Your task to perform on an android device: open a bookmark in the chrome app Image 0: 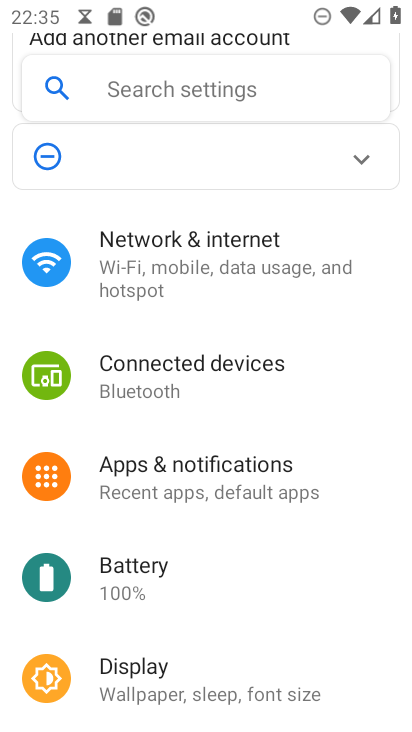
Step 0: press home button
Your task to perform on an android device: open a bookmark in the chrome app Image 1: 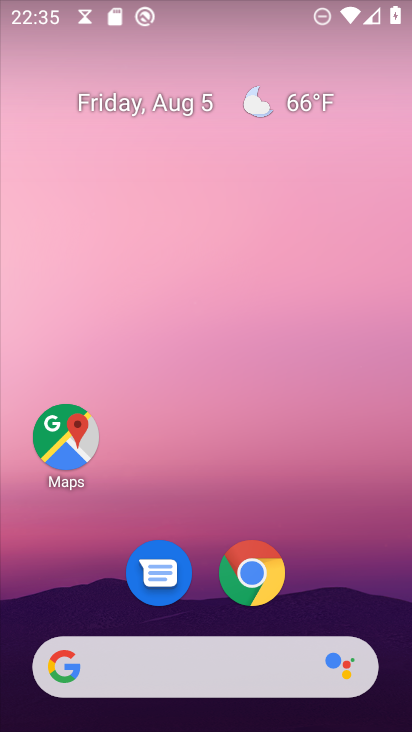
Step 1: click (250, 570)
Your task to perform on an android device: open a bookmark in the chrome app Image 2: 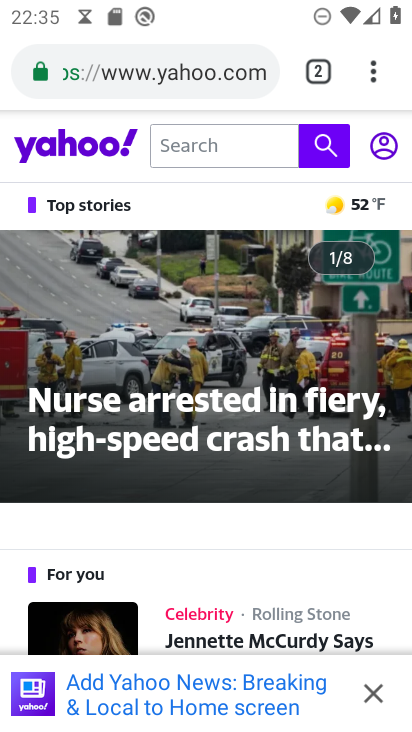
Step 2: click (374, 71)
Your task to perform on an android device: open a bookmark in the chrome app Image 3: 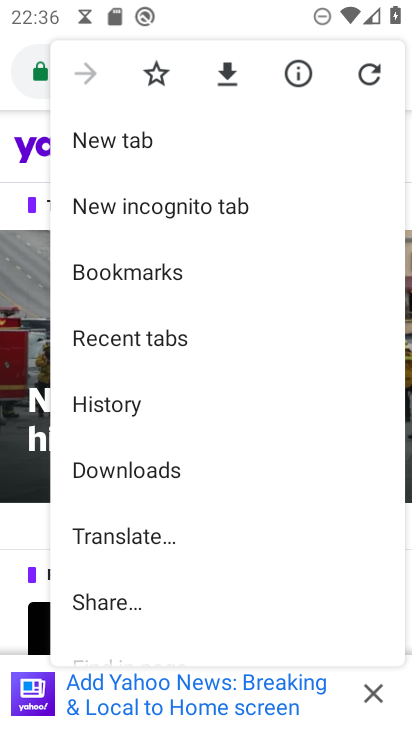
Step 3: click (156, 268)
Your task to perform on an android device: open a bookmark in the chrome app Image 4: 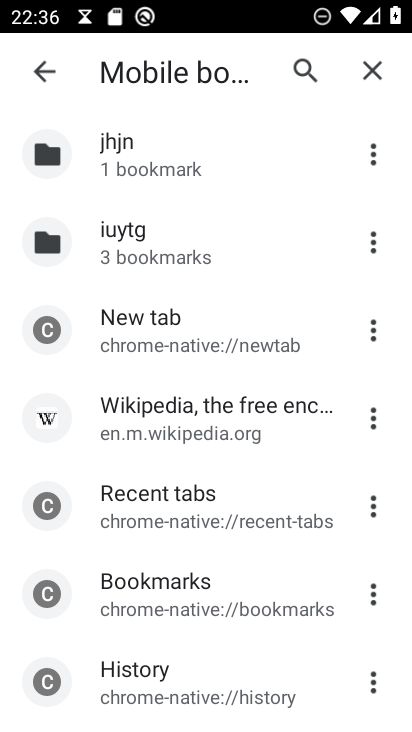
Step 4: task complete